Your task to perform on an android device: Open accessibility settings Image 0: 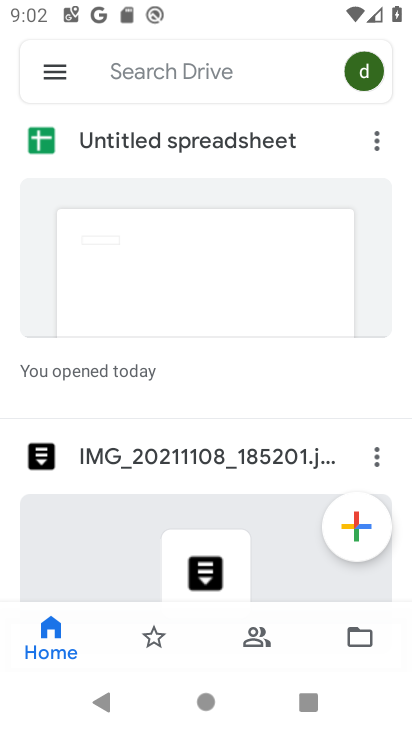
Step 0: press home button
Your task to perform on an android device: Open accessibility settings Image 1: 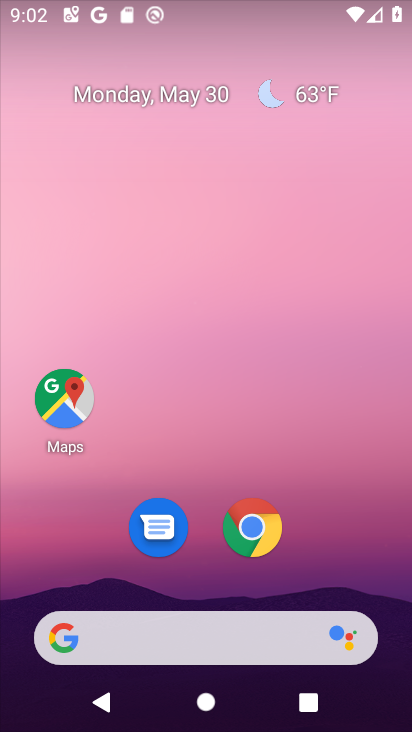
Step 1: drag from (260, 580) to (283, 261)
Your task to perform on an android device: Open accessibility settings Image 2: 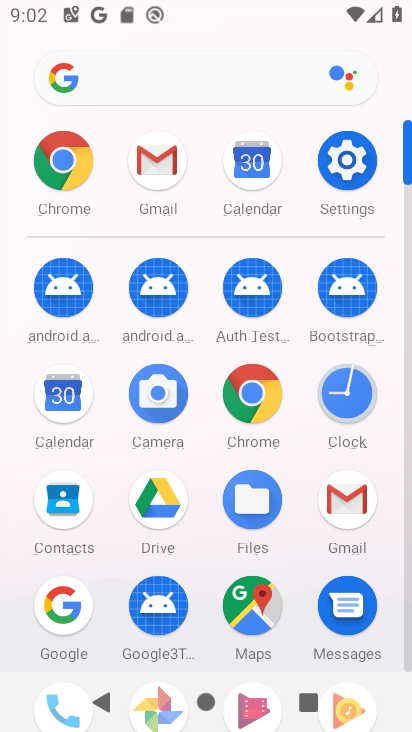
Step 2: click (350, 149)
Your task to perform on an android device: Open accessibility settings Image 3: 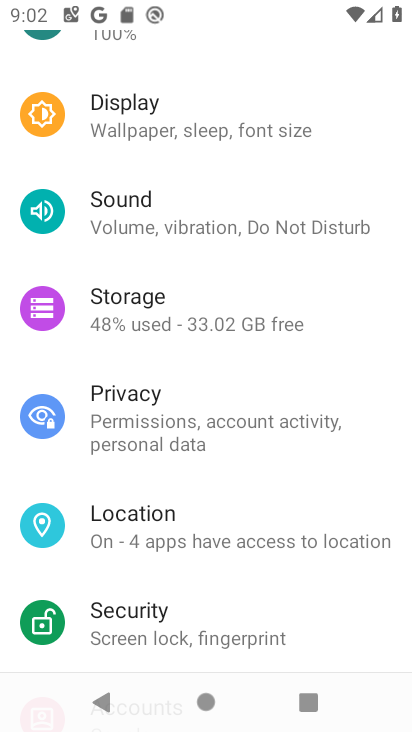
Step 3: drag from (236, 601) to (274, 319)
Your task to perform on an android device: Open accessibility settings Image 4: 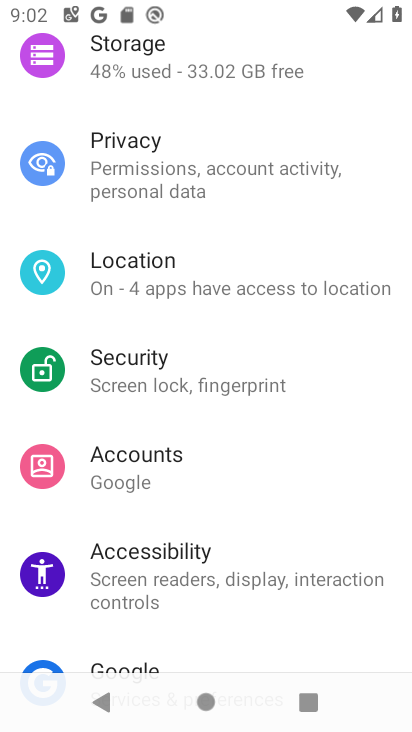
Step 4: click (111, 598)
Your task to perform on an android device: Open accessibility settings Image 5: 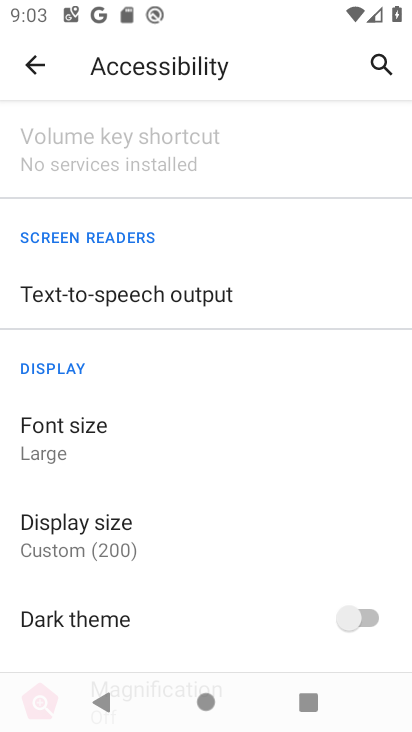
Step 5: task complete